Your task to perform on an android device: How much does a 2 bedroom apartment rent for in Portland? Image 0: 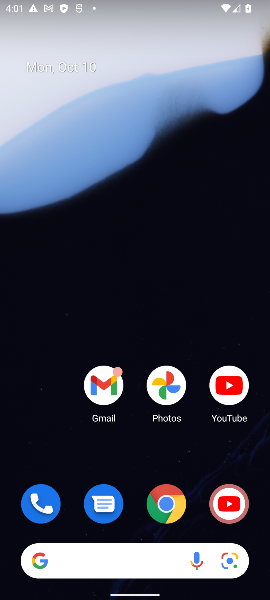
Step 0: drag from (162, 510) to (144, 47)
Your task to perform on an android device: How much does a 2 bedroom apartment rent for in Portland? Image 1: 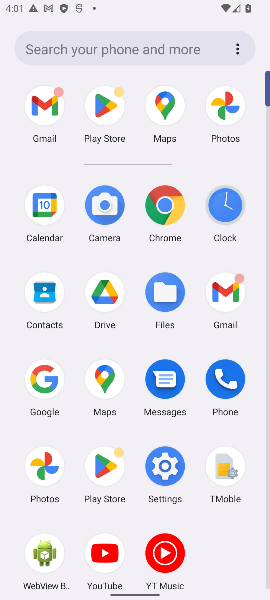
Step 1: click (154, 220)
Your task to perform on an android device: How much does a 2 bedroom apartment rent for in Portland? Image 2: 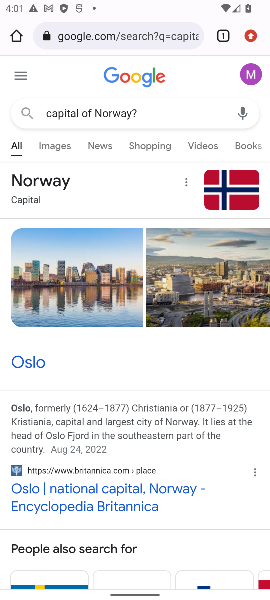
Step 2: click (158, 35)
Your task to perform on an android device: How much does a 2 bedroom apartment rent for in Portland? Image 3: 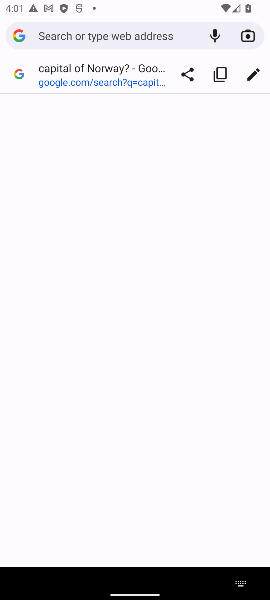
Step 3: type "How much does a 2 bedroom apartment rent for in Portland?"
Your task to perform on an android device: How much does a 2 bedroom apartment rent for in Portland? Image 4: 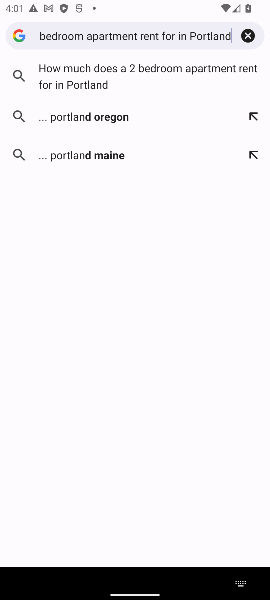
Step 4: press enter
Your task to perform on an android device: How much does a 2 bedroom apartment rent for in Portland? Image 5: 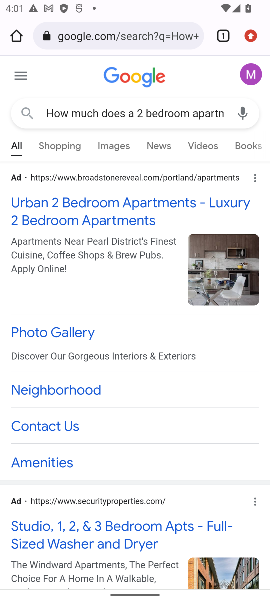
Step 5: click (96, 214)
Your task to perform on an android device: How much does a 2 bedroom apartment rent for in Portland? Image 6: 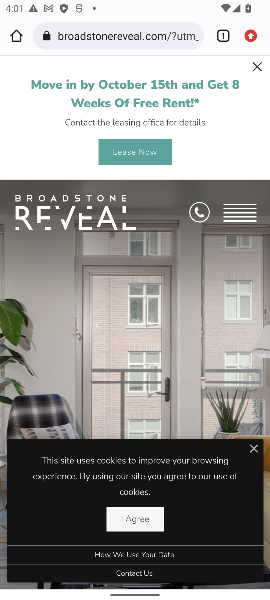
Step 6: task complete